Your task to perform on an android device: Open internet settings Image 0: 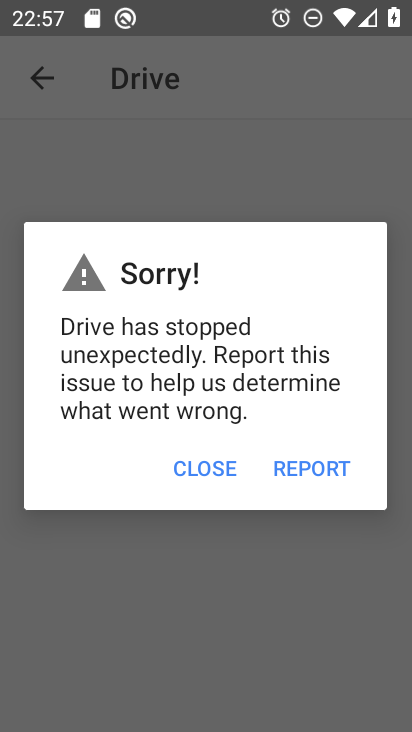
Step 0: press home button
Your task to perform on an android device: Open internet settings Image 1: 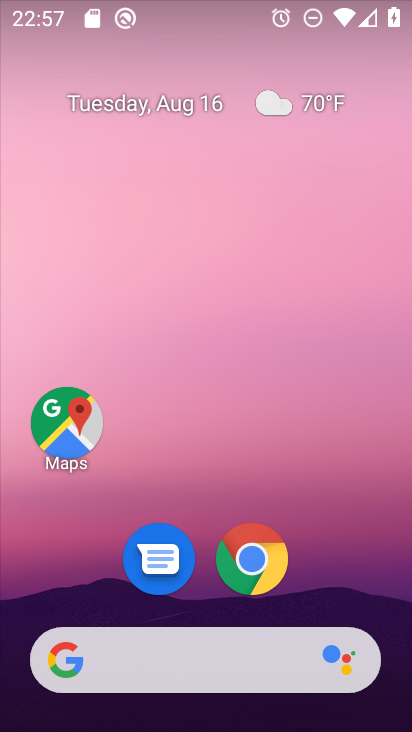
Step 1: drag from (202, 663) to (232, 154)
Your task to perform on an android device: Open internet settings Image 2: 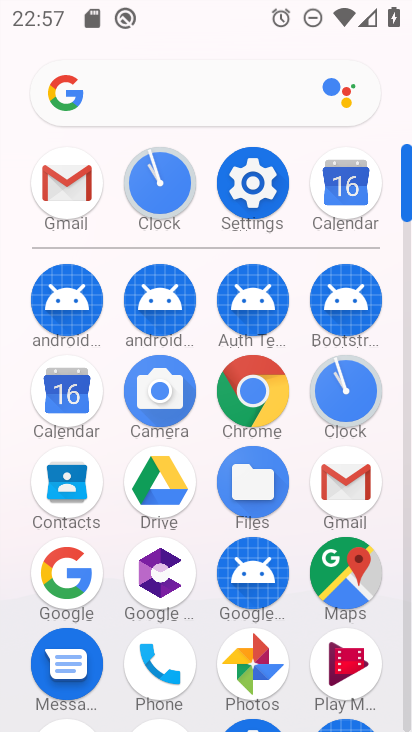
Step 2: click (254, 183)
Your task to perform on an android device: Open internet settings Image 3: 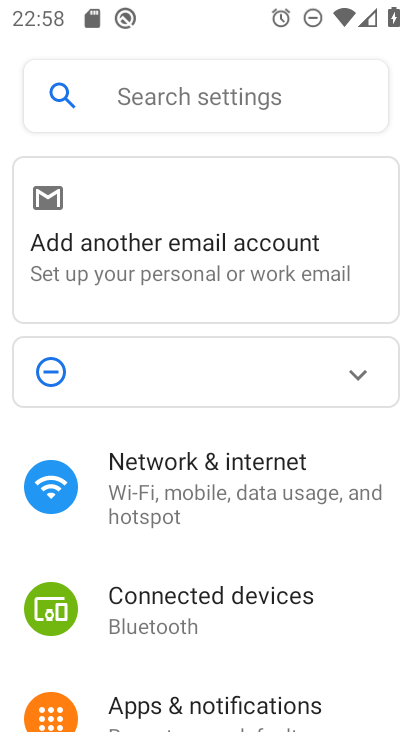
Step 3: click (226, 467)
Your task to perform on an android device: Open internet settings Image 4: 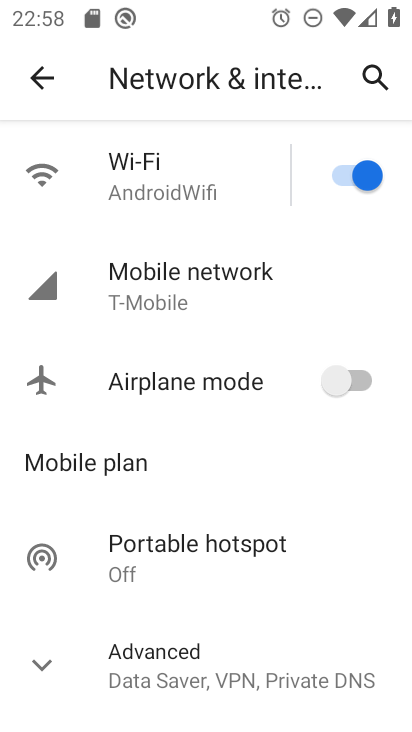
Step 4: task complete